Your task to perform on an android device: install app "LiveIn - Share Your Moment" Image 0: 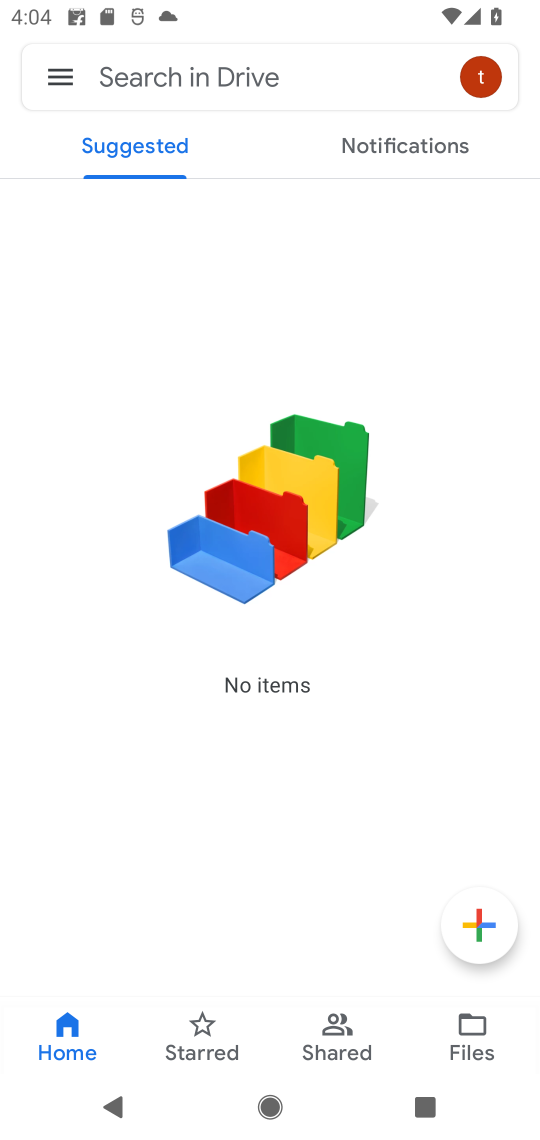
Step 0: press home button
Your task to perform on an android device: install app "LiveIn - Share Your Moment" Image 1: 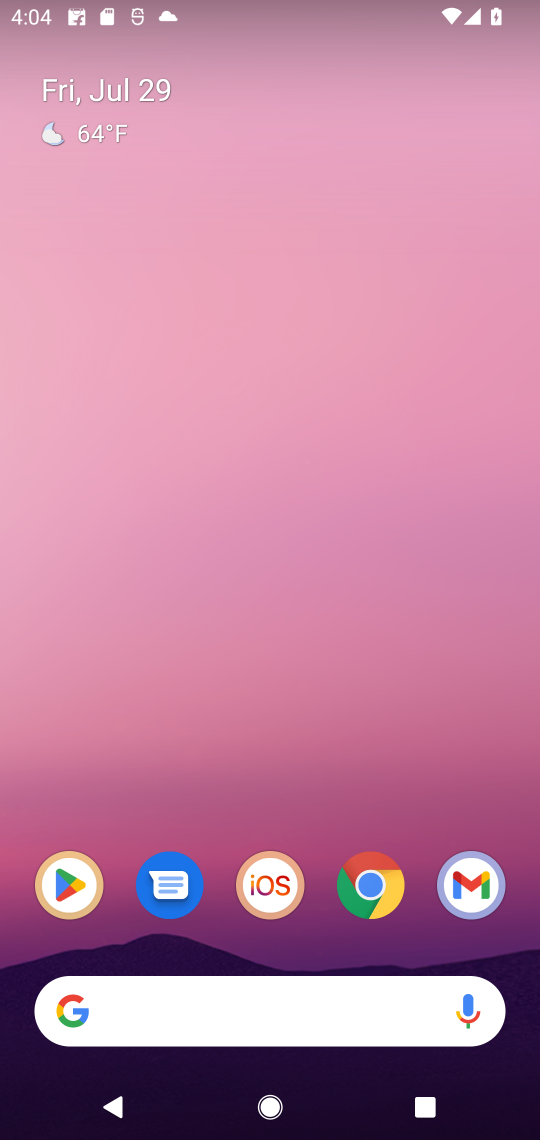
Step 1: click (87, 887)
Your task to perform on an android device: install app "LiveIn - Share Your Moment" Image 2: 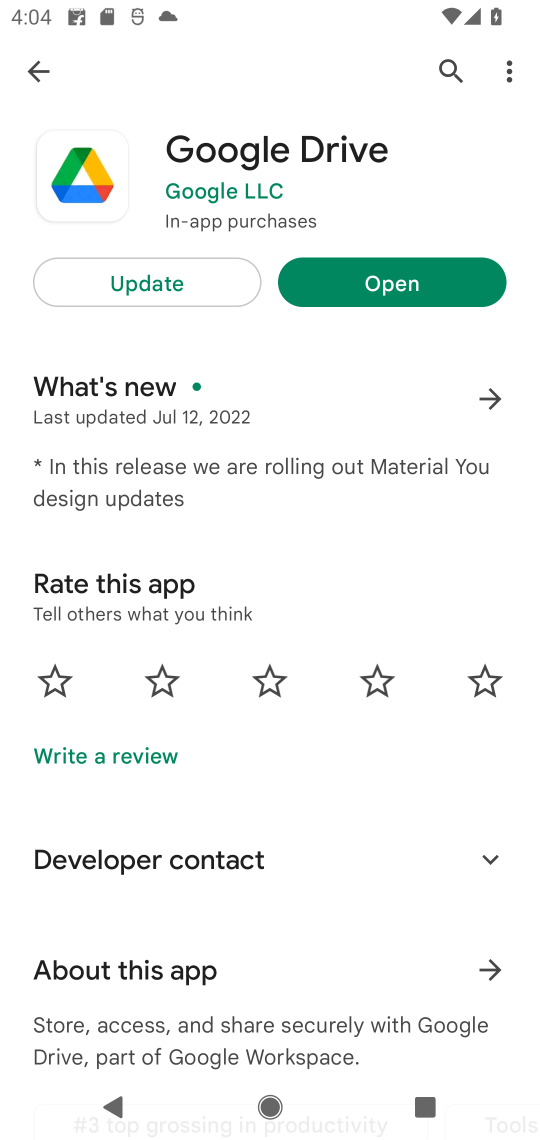
Step 2: click (446, 60)
Your task to perform on an android device: install app "LiveIn - Share Your Moment" Image 3: 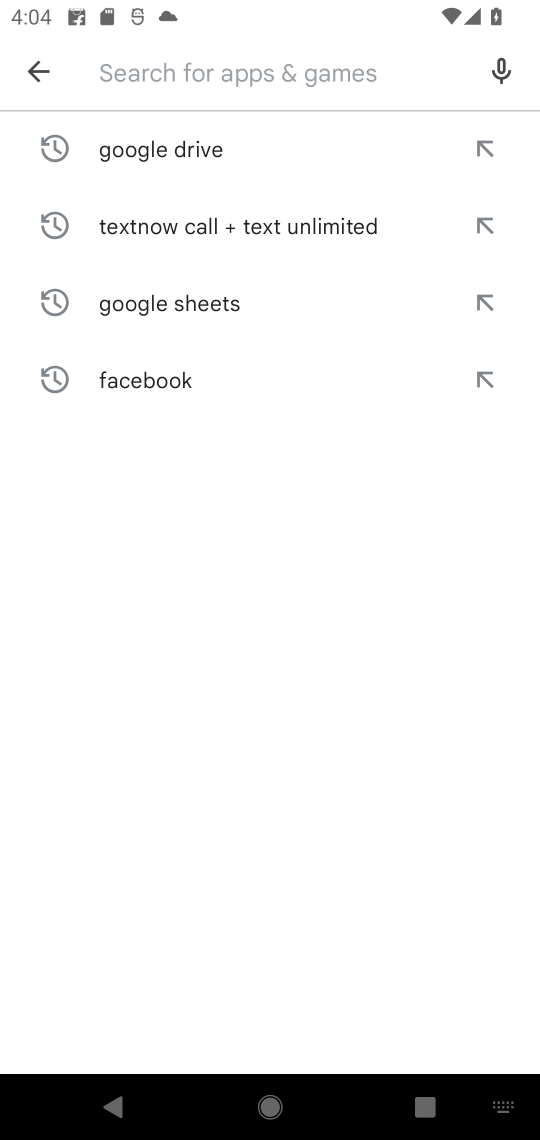
Step 3: type "LiveIn - Share Your Moment"
Your task to perform on an android device: install app "LiveIn - Share Your Moment" Image 4: 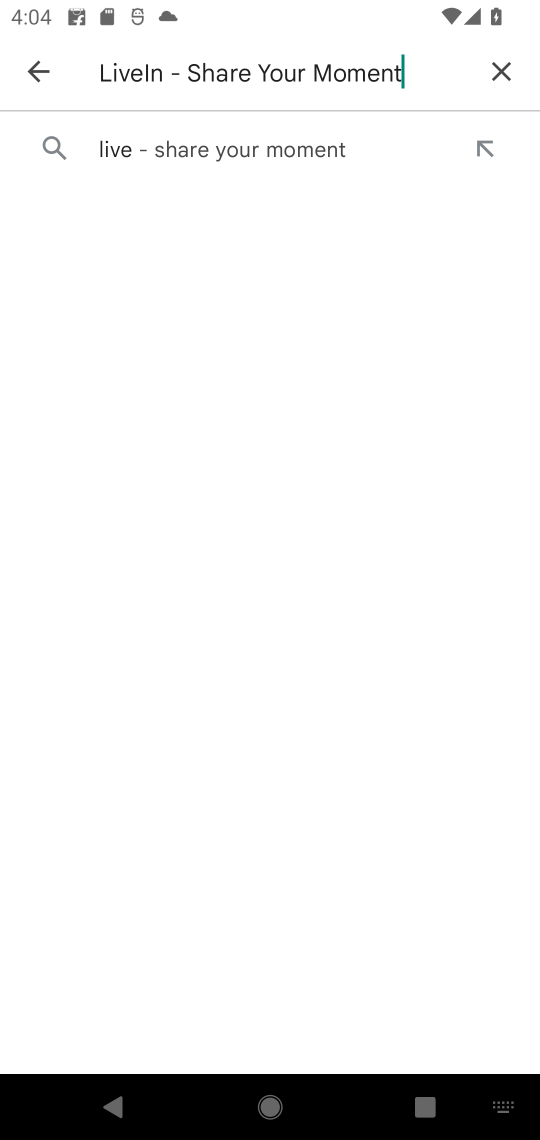
Step 4: click (208, 164)
Your task to perform on an android device: install app "LiveIn - Share Your Moment" Image 5: 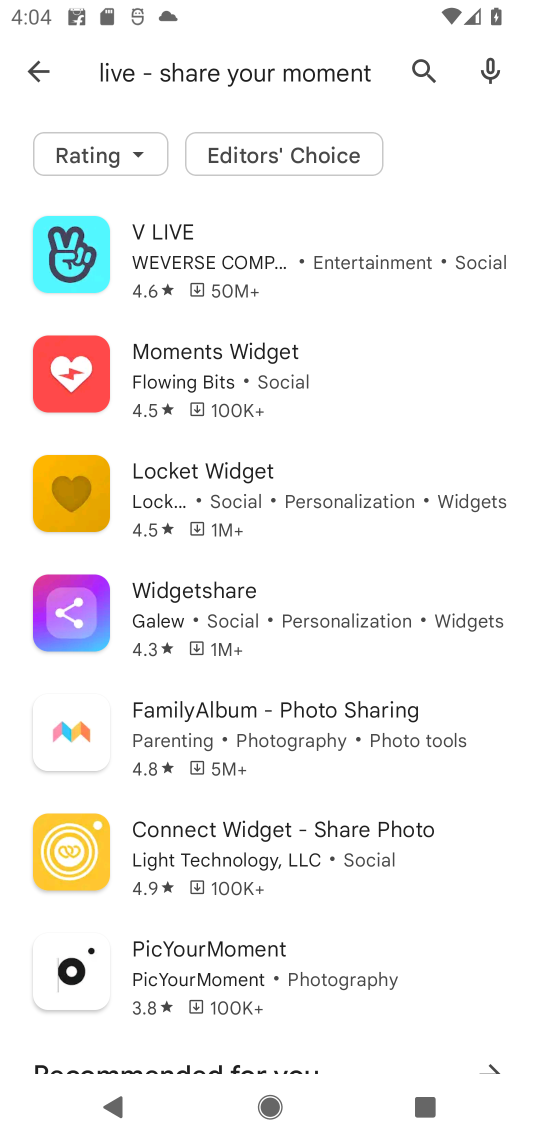
Step 5: task complete